Your task to perform on an android device: toggle improve location accuracy Image 0: 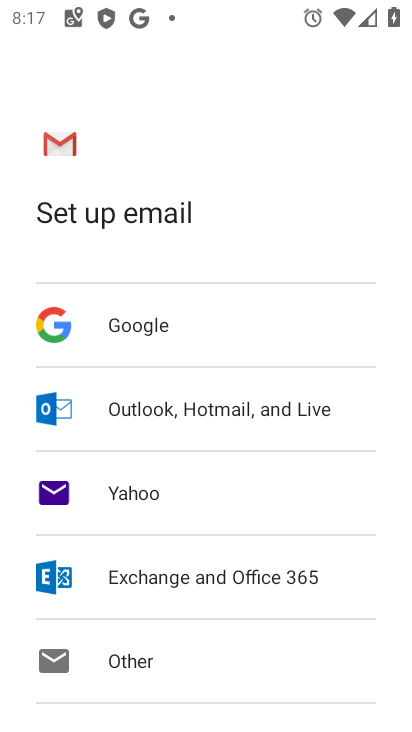
Step 0: press home button
Your task to perform on an android device: toggle improve location accuracy Image 1: 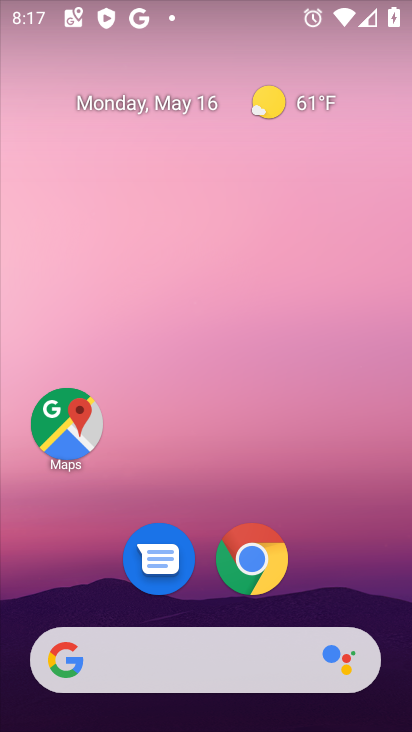
Step 1: drag from (396, 573) to (369, 238)
Your task to perform on an android device: toggle improve location accuracy Image 2: 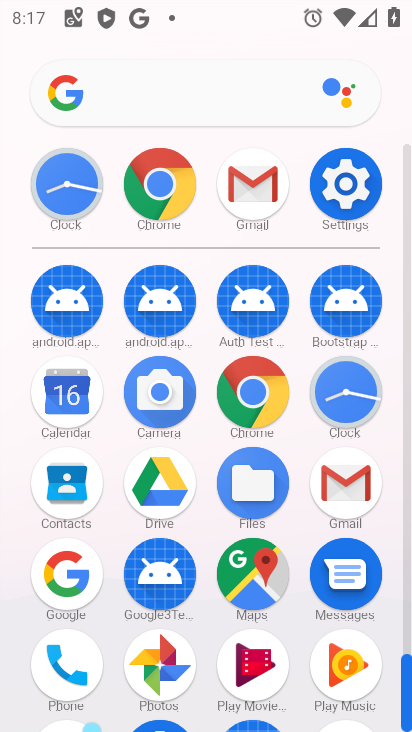
Step 2: click (361, 202)
Your task to perform on an android device: toggle improve location accuracy Image 3: 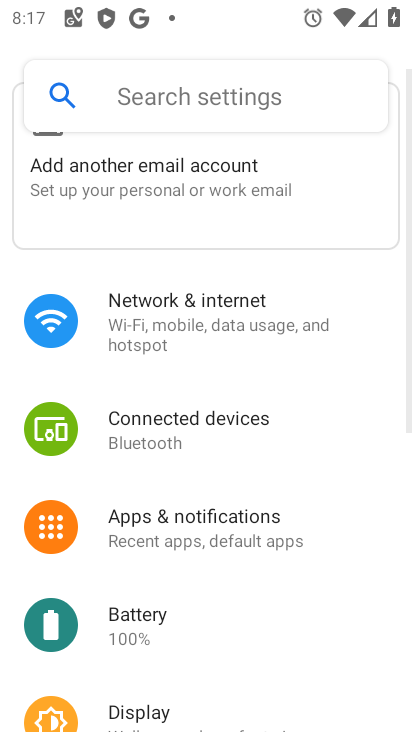
Step 3: drag from (287, 657) to (298, 363)
Your task to perform on an android device: toggle improve location accuracy Image 4: 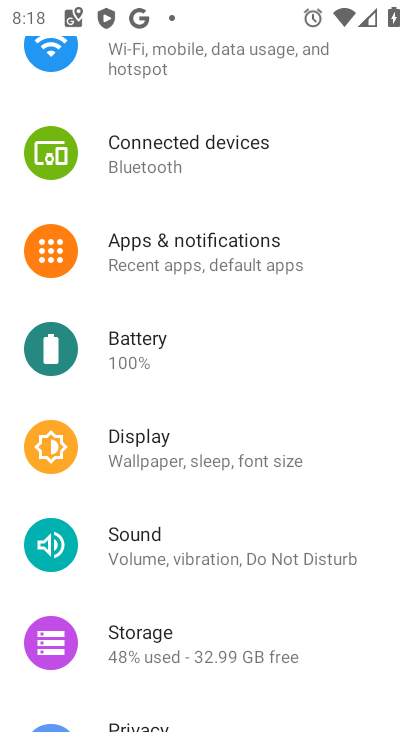
Step 4: drag from (288, 149) to (264, 447)
Your task to perform on an android device: toggle improve location accuracy Image 5: 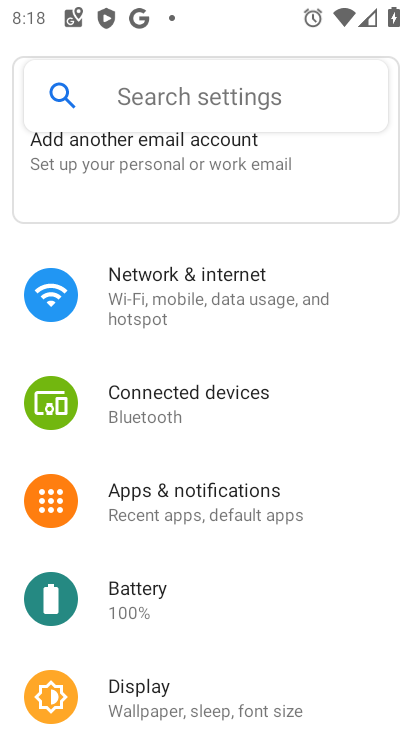
Step 5: drag from (286, 572) to (332, 250)
Your task to perform on an android device: toggle improve location accuracy Image 6: 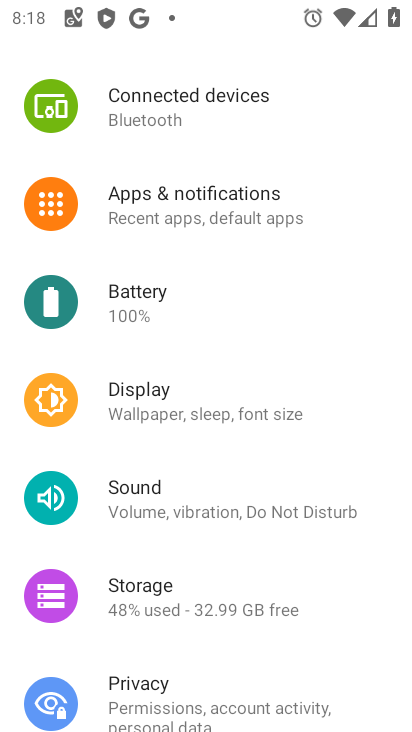
Step 6: drag from (223, 548) to (231, 200)
Your task to perform on an android device: toggle improve location accuracy Image 7: 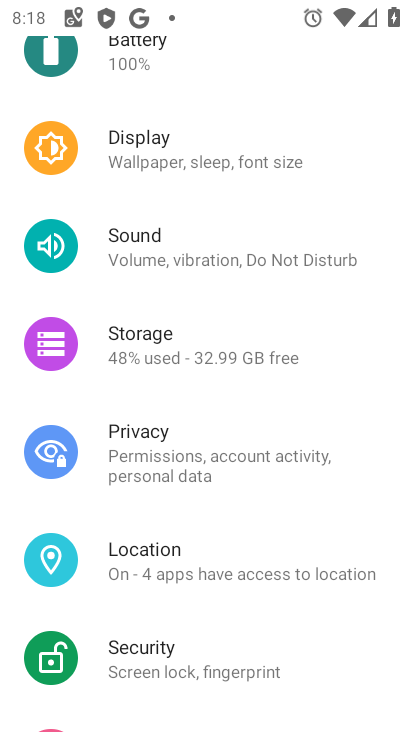
Step 7: click (204, 561)
Your task to perform on an android device: toggle improve location accuracy Image 8: 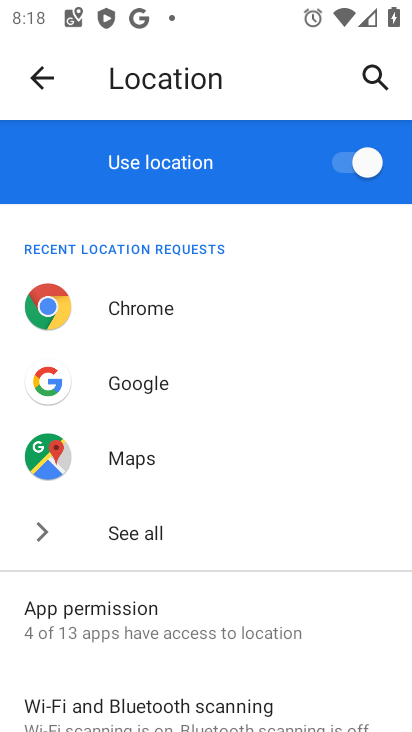
Step 8: drag from (258, 586) to (293, 278)
Your task to perform on an android device: toggle improve location accuracy Image 9: 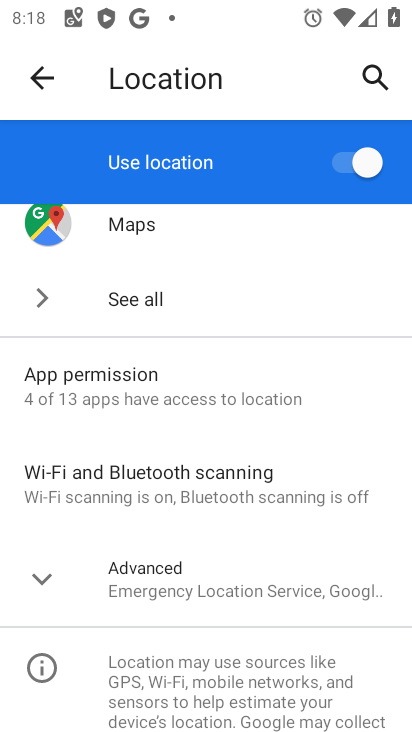
Step 9: click (269, 580)
Your task to perform on an android device: toggle improve location accuracy Image 10: 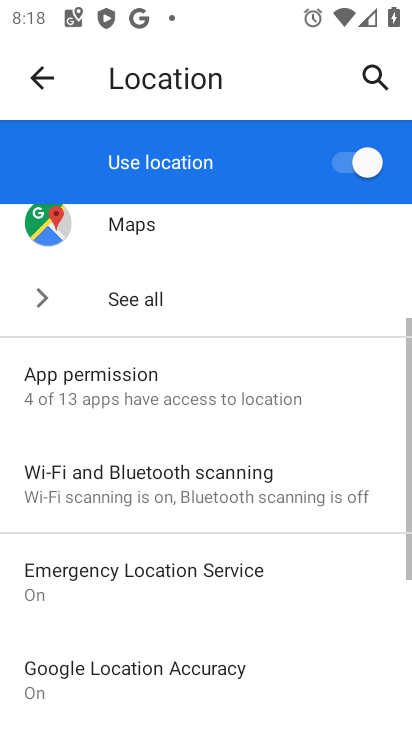
Step 10: drag from (270, 645) to (372, 346)
Your task to perform on an android device: toggle improve location accuracy Image 11: 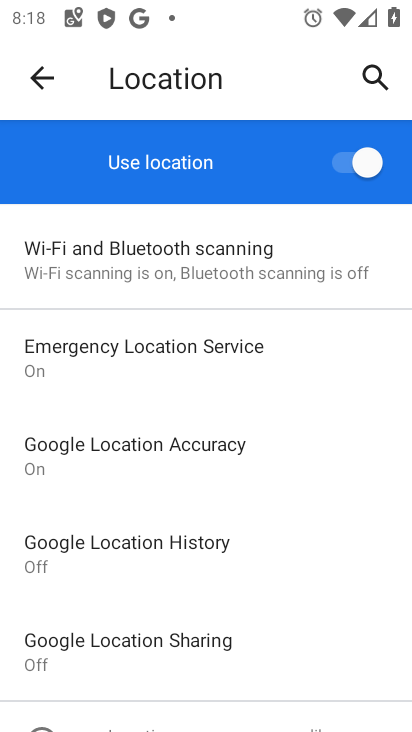
Step 11: drag from (246, 559) to (295, 391)
Your task to perform on an android device: toggle improve location accuracy Image 12: 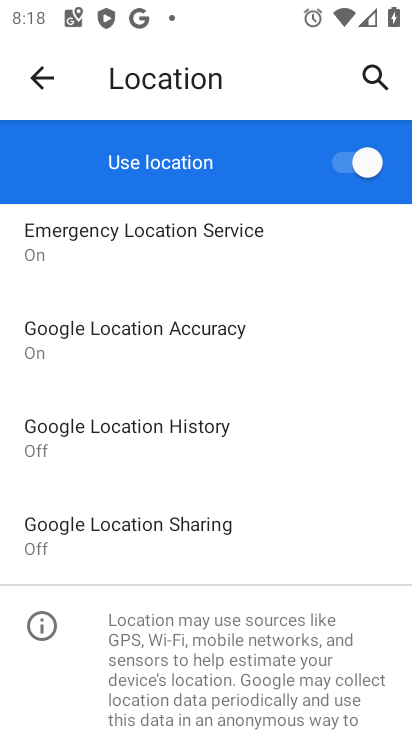
Step 12: click (72, 340)
Your task to perform on an android device: toggle improve location accuracy Image 13: 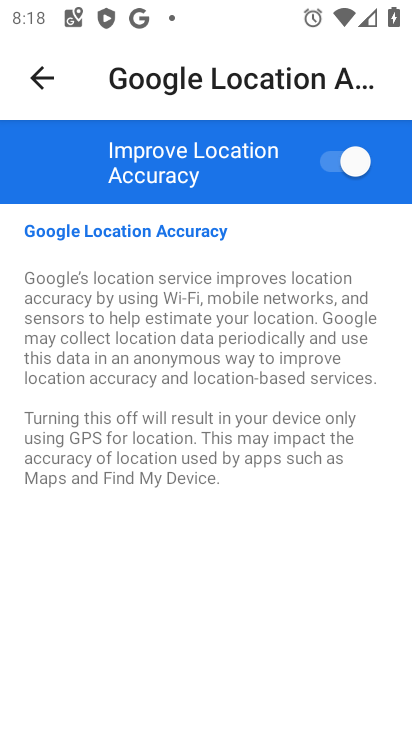
Step 13: click (340, 172)
Your task to perform on an android device: toggle improve location accuracy Image 14: 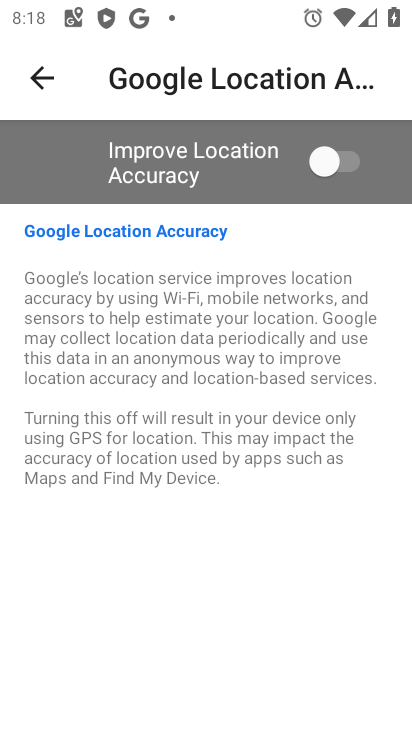
Step 14: task complete